Your task to perform on an android device: Open Amazon Image 0: 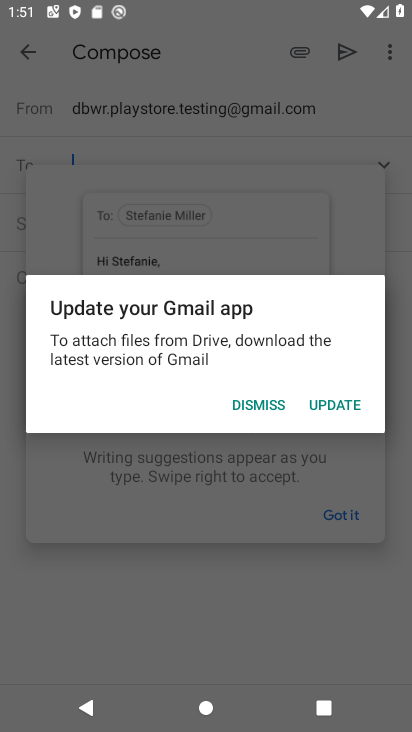
Step 0: press home button
Your task to perform on an android device: Open Amazon Image 1: 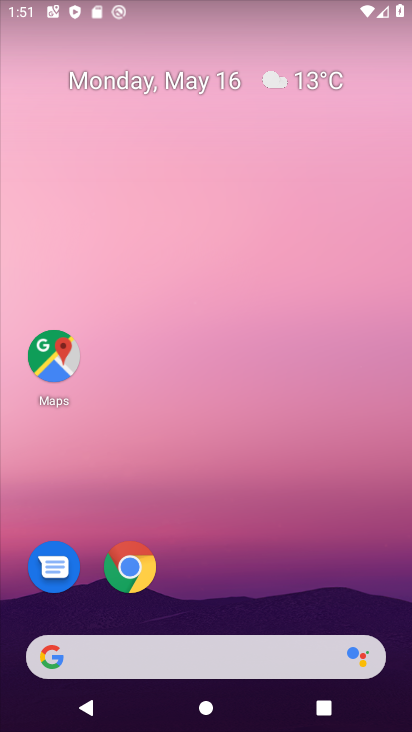
Step 1: click (128, 576)
Your task to perform on an android device: Open Amazon Image 2: 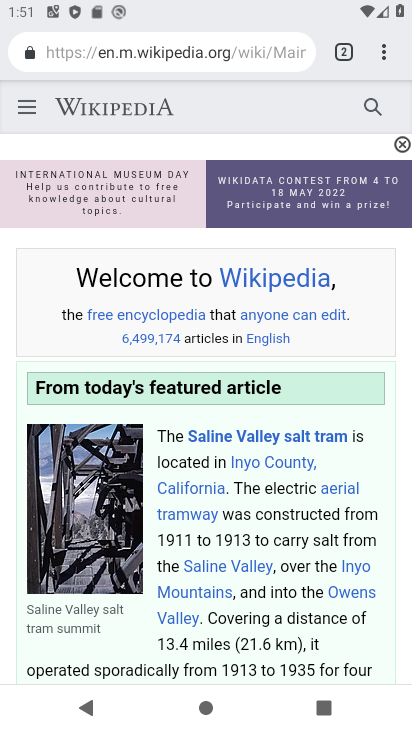
Step 2: click (385, 50)
Your task to perform on an android device: Open Amazon Image 3: 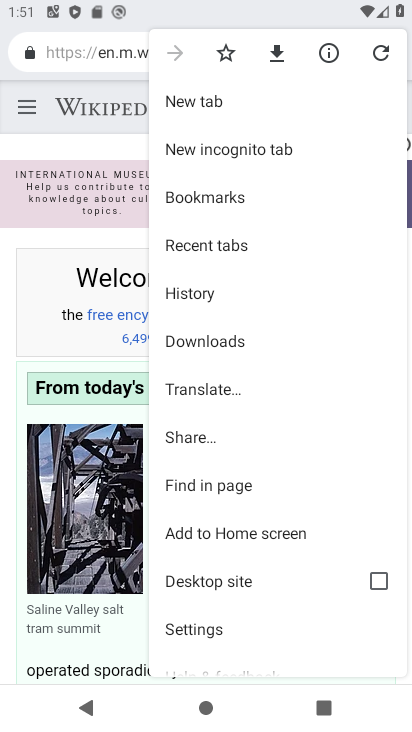
Step 3: click (213, 100)
Your task to perform on an android device: Open Amazon Image 4: 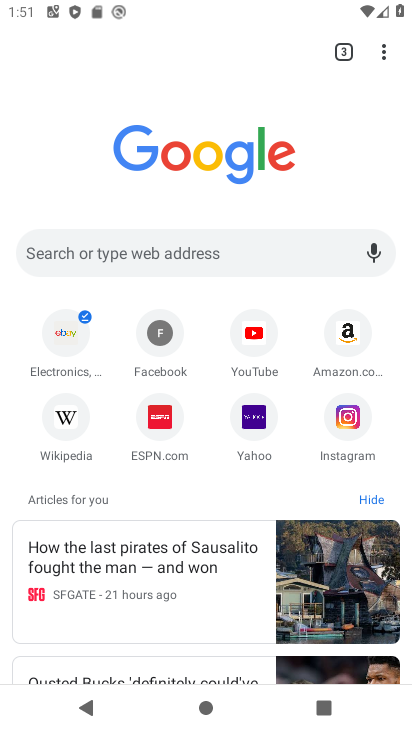
Step 4: click (349, 330)
Your task to perform on an android device: Open Amazon Image 5: 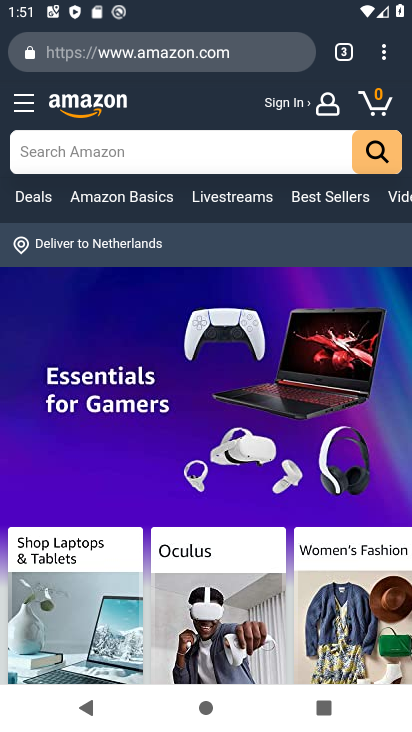
Step 5: task complete